Your task to perform on an android device: Open Android settings Image 0: 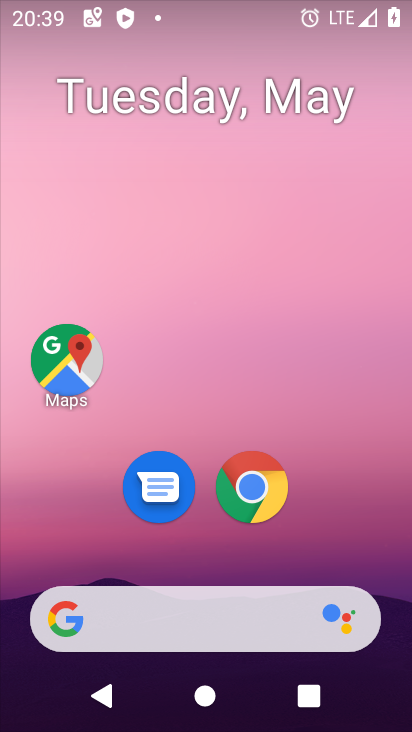
Step 0: drag from (385, 519) to (272, 18)
Your task to perform on an android device: Open Android settings Image 1: 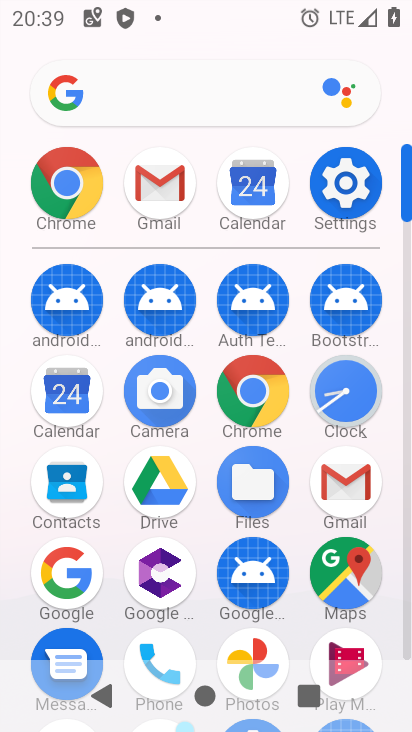
Step 1: click (332, 177)
Your task to perform on an android device: Open Android settings Image 2: 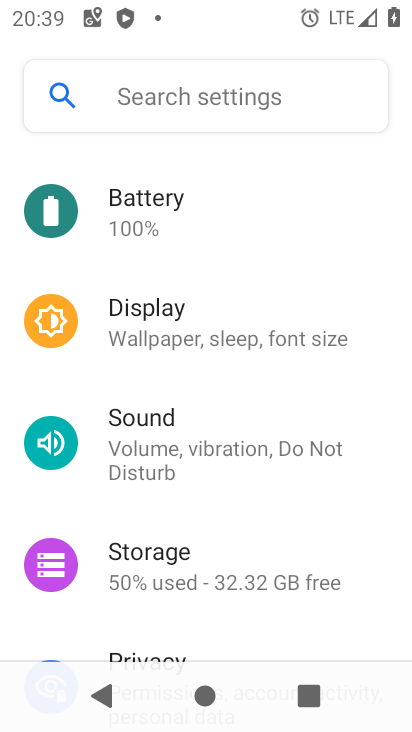
Step 2: task complete